Your task to perform on an android device: Go to settings Image 0: 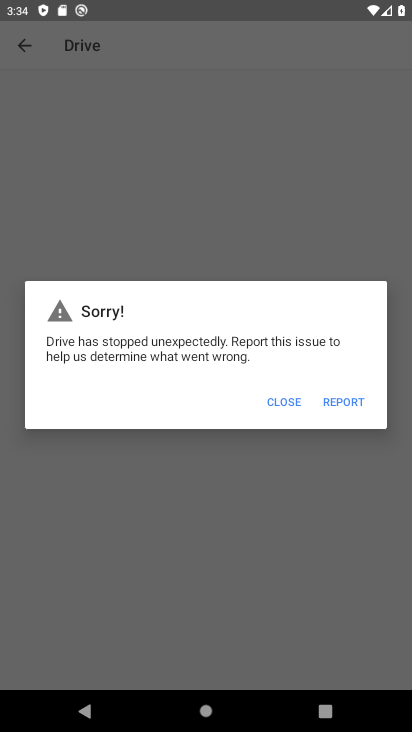
Step 0: press home button
Your task to perform on an android device: Go to settings Image 1: 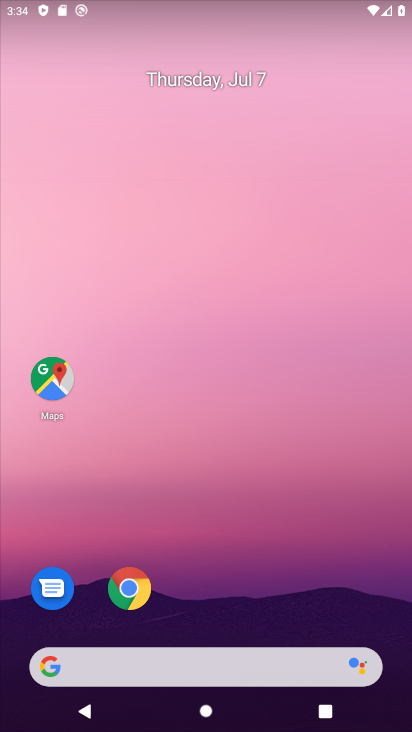
Step 1: drag from (267, 694) to (268, 173)
Your task to perform on an android device: Go to settings Image 2: 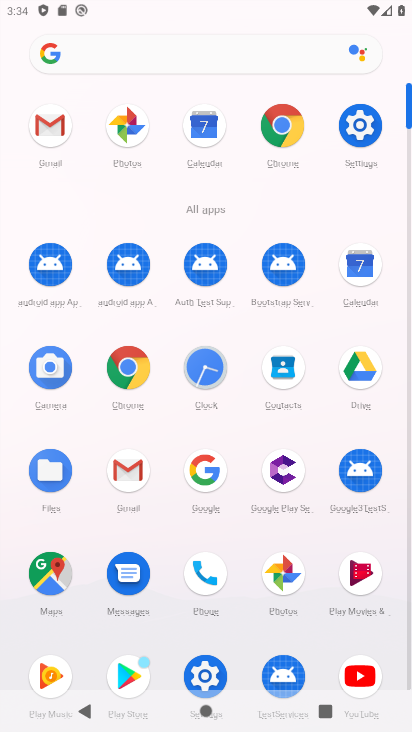
Step 2: click (349, 127)
Your task to perform on an android device: Go to settings Image 3: 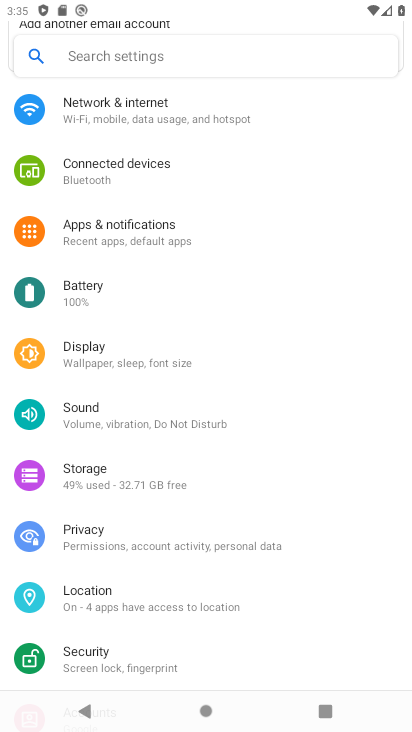
Step 3: task complete